Your task to perform on an android device: Open Reddit.com Image 0: 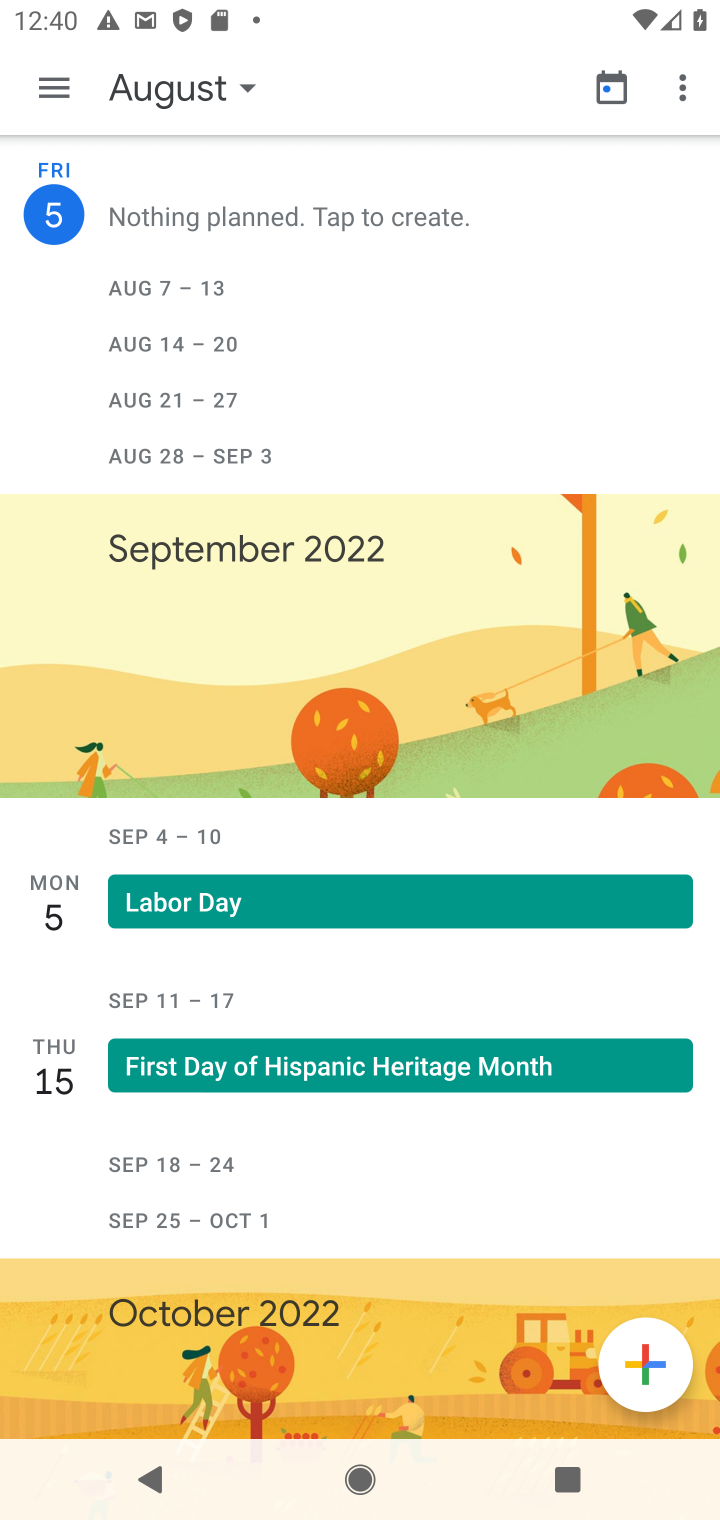
Step 0: press home button
Your task to perform on an android device: Open Reddit.com Image 1: 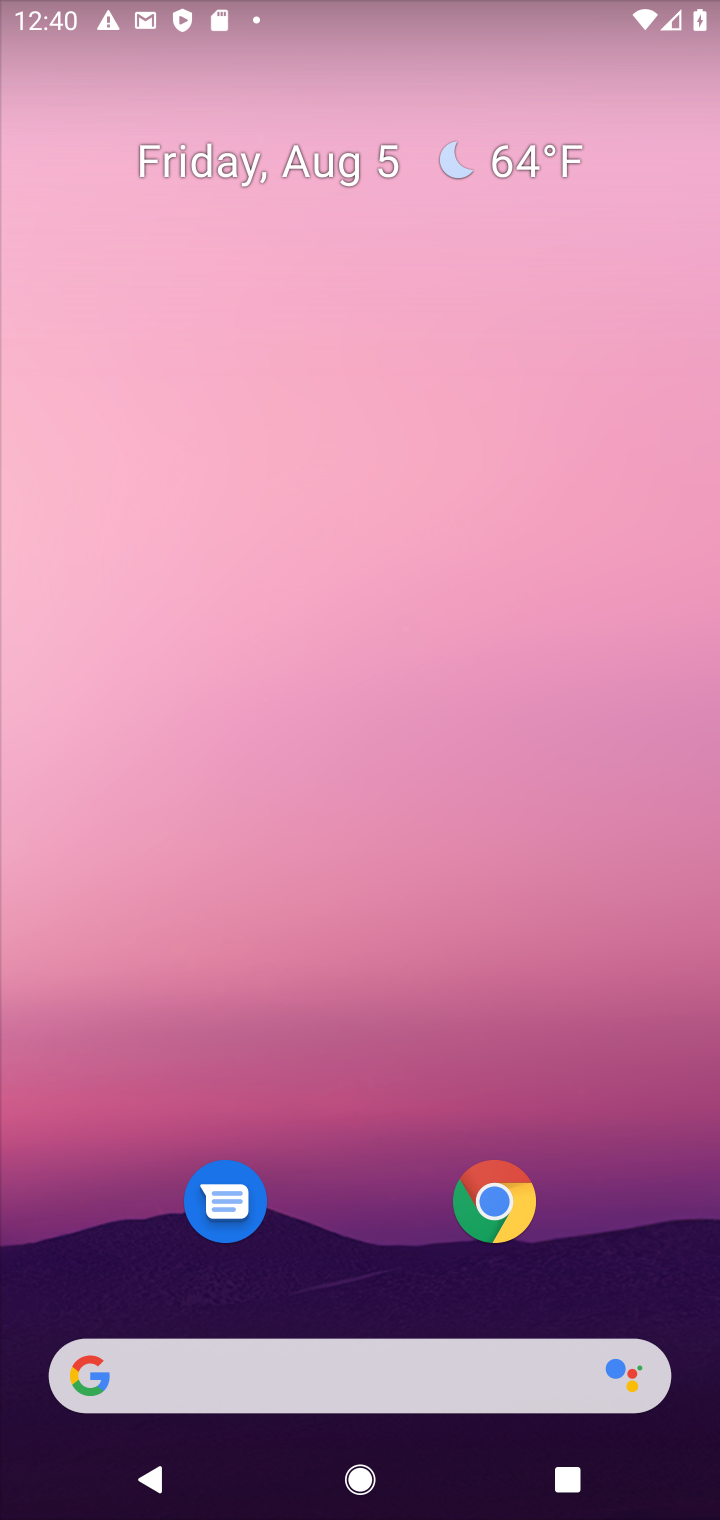
Step 1: click (476, 1212)
Your task to perform on an android device: Open Reddit.com Image 2: 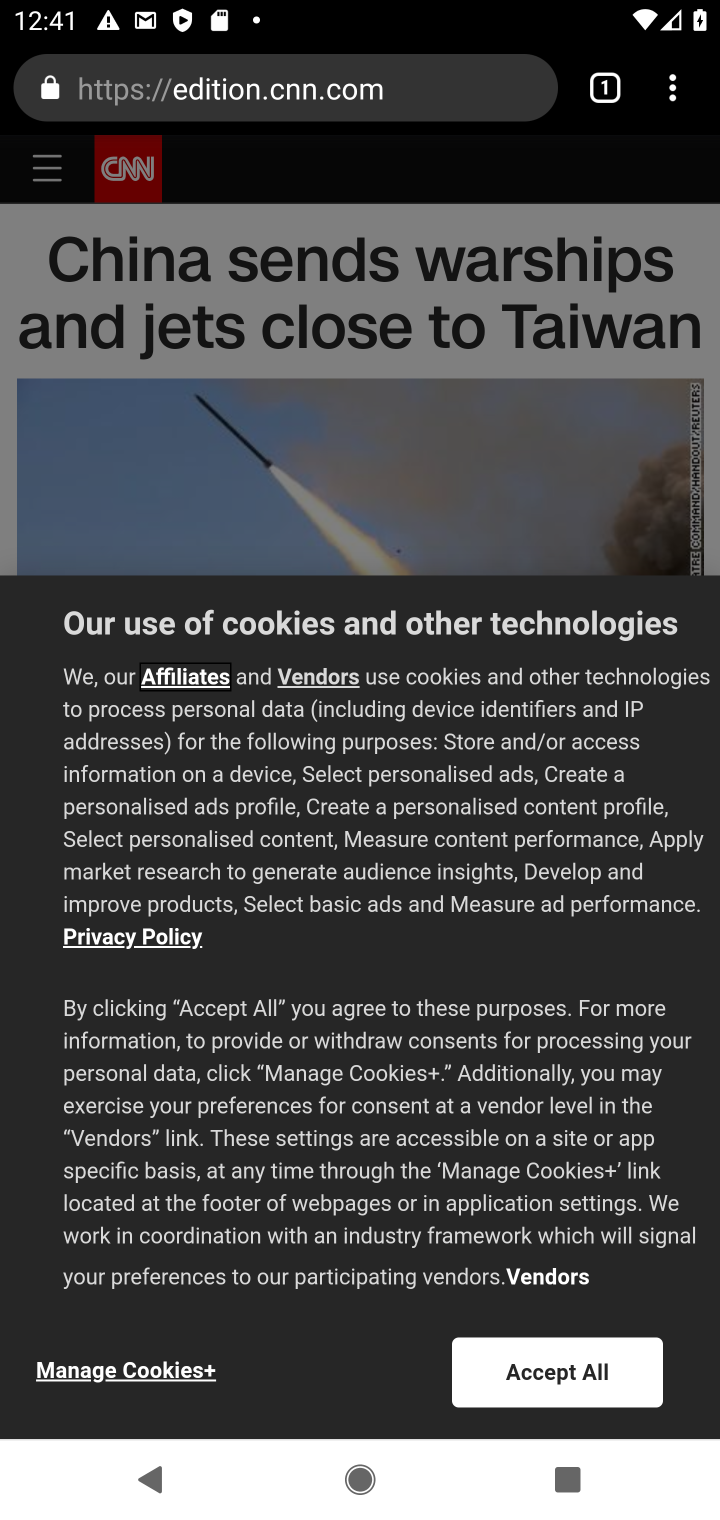
Step 2: click (410, 86)
Your task to perform on an android device: Open Reddit.com Image 3: 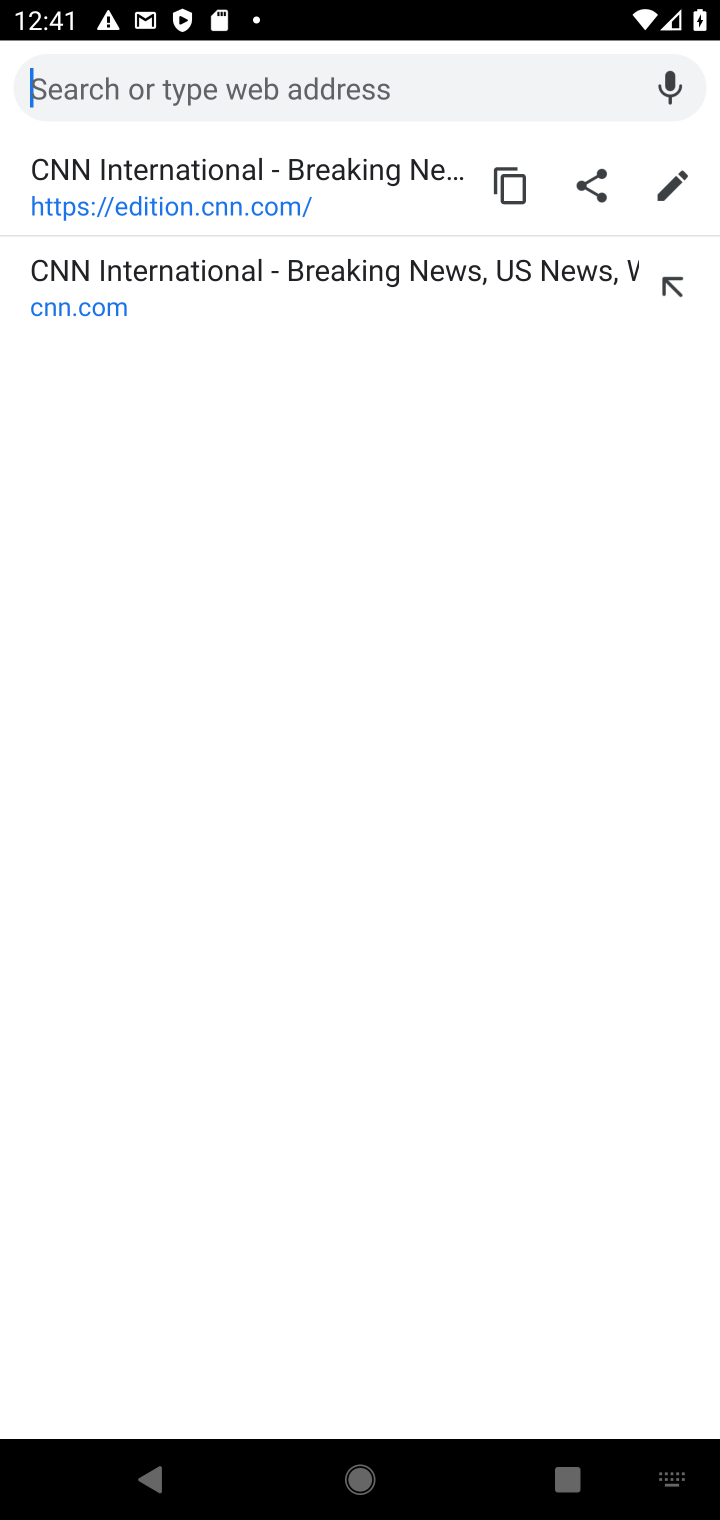
Step 3: type "reddit.com"
Your task to perform on an android device: Open Reddit.com Image 4: 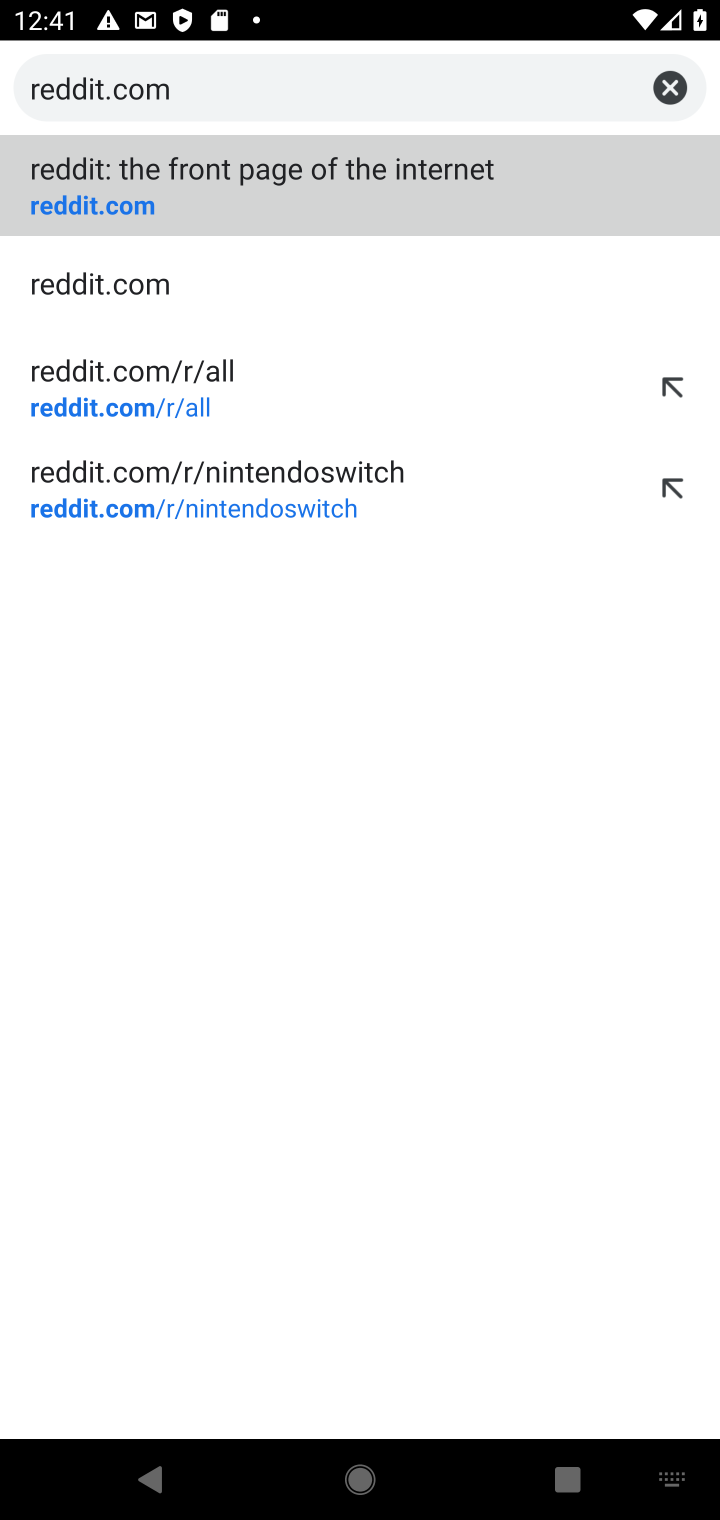
Step 4: click (453, 197)
Your task to perform on an android device: Open Reddit.com Image 5: 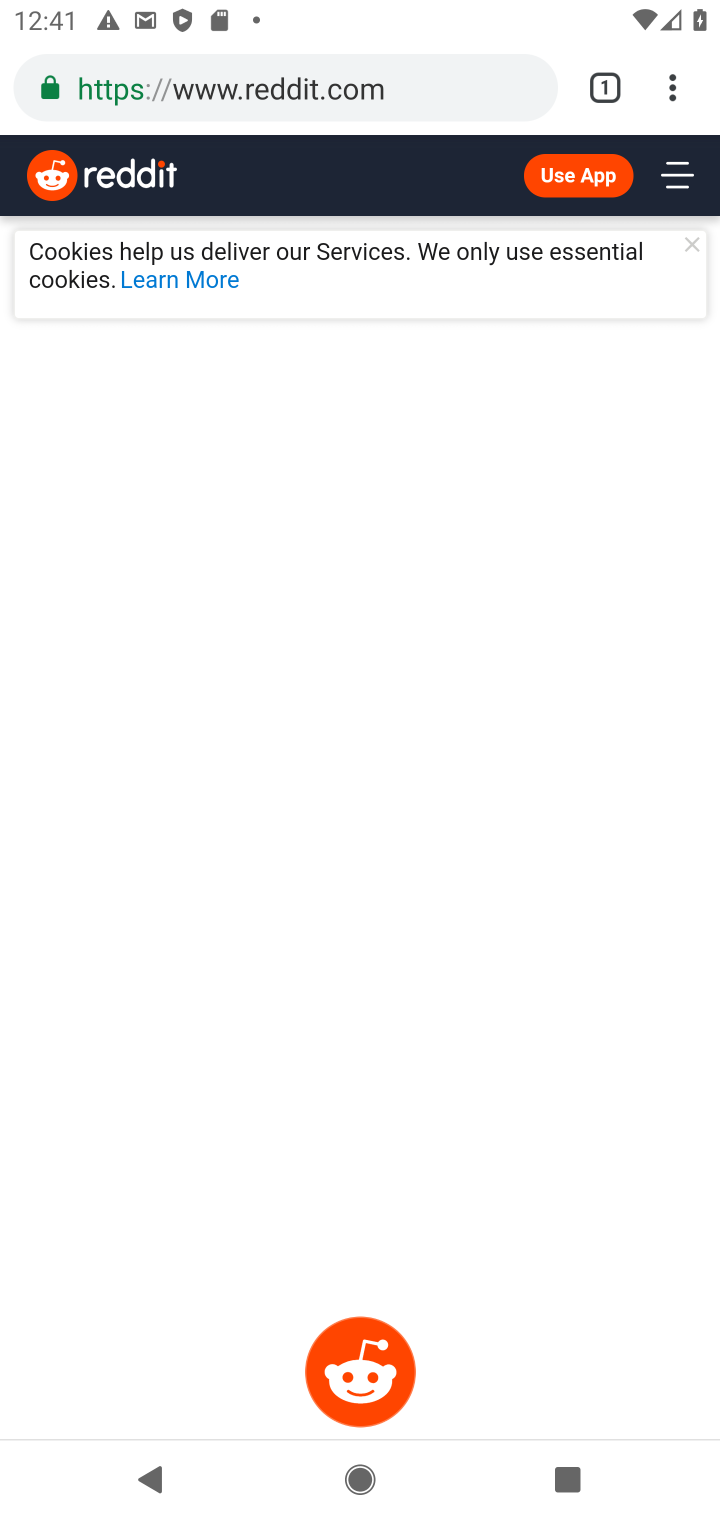
Step 5: task complete